Your task to perform on an android device: toggle data saver in the chrome app Image 0: 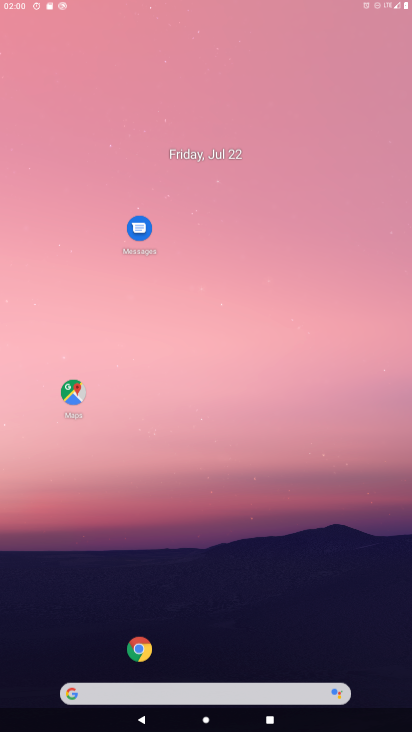
Step 0: drag from (329, 130) to (369, 60)
Your task to perform on an android device: toggle data saver in the chrome app Image 1: 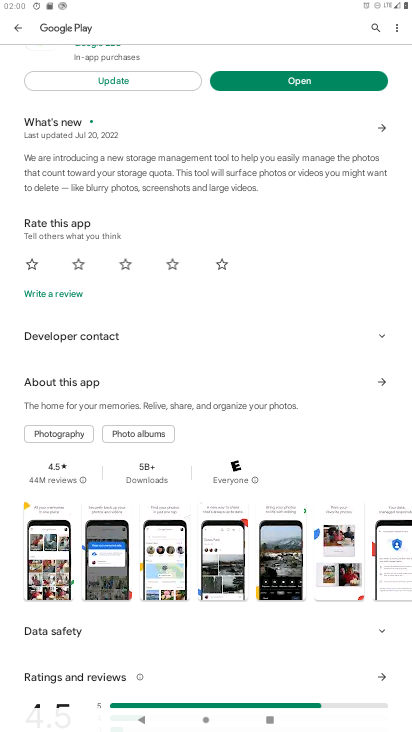
Step 1: drag from (180, 120) to (146, 679)
Your task to perform on an android device: toggle data saver in the chrome app Image 2: 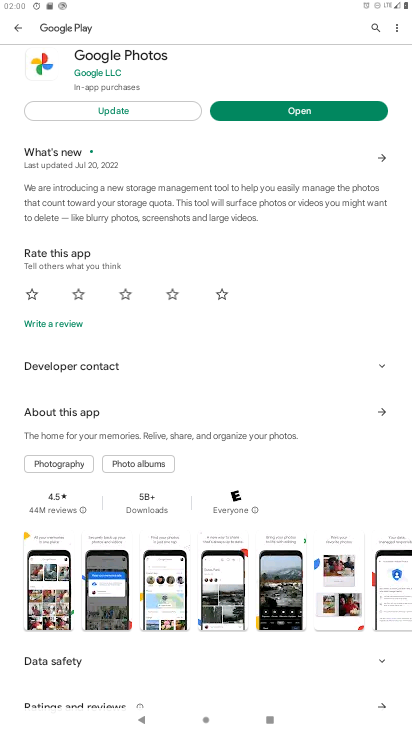
Step 2: press home button
Your task to perform on an android device: toggle data saver in the chrome app Image 3: 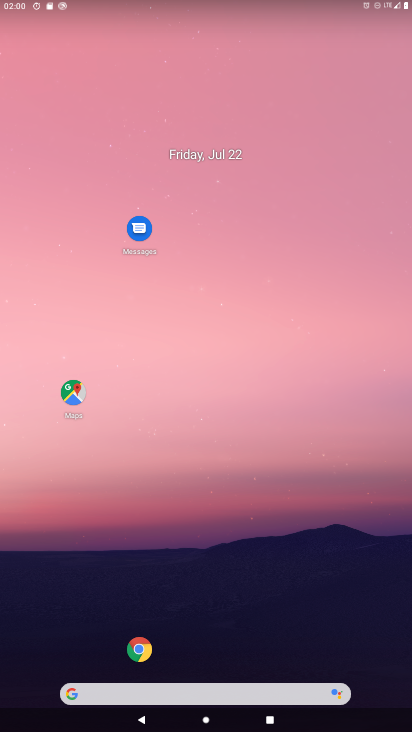
Step 3: click (126, 658)
Your task to perform on an android device: toggle data saver in the chrome app Image 4: 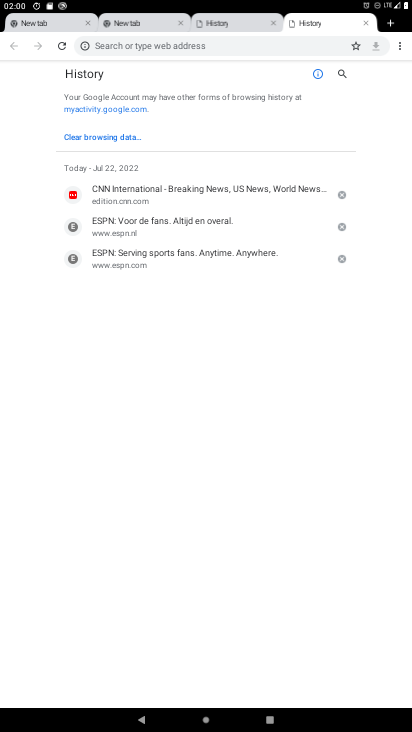
Step 4: click (405, 49)
Your task to perform on an android device: toggle data saver in the chrome app Image 5: 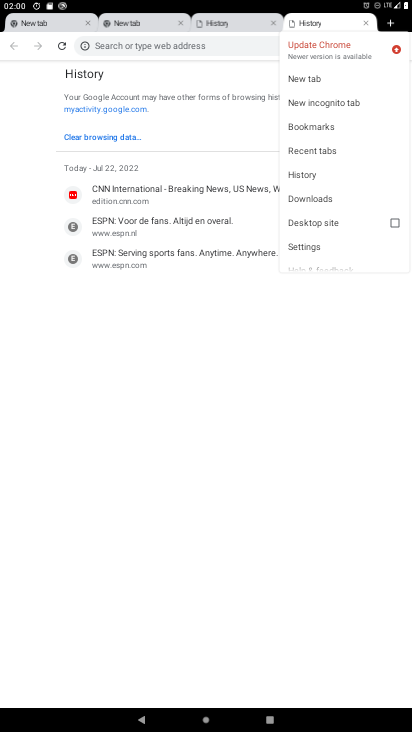
Step 5: click (306, 241)
Your task to perform on an android device: toggle data saver in the chrome app Image 6: 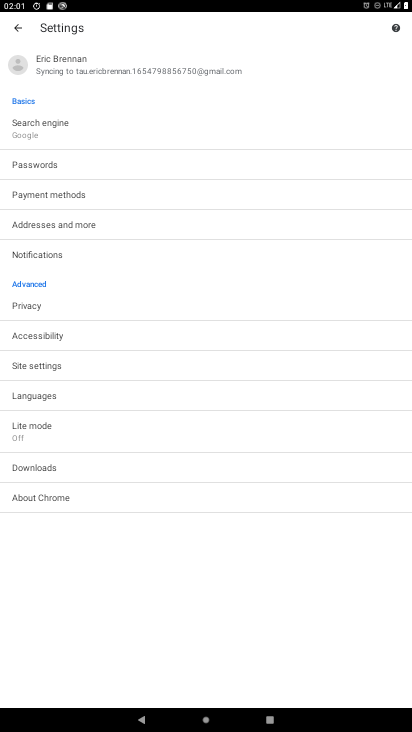
Step 6: task complete